Your task to perform on an android device: Open the map Image 0: 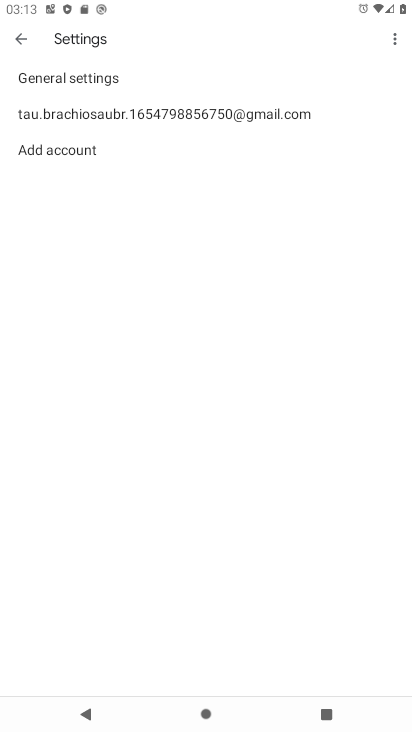
Step 0: press home button
Your task to perform on an android device: Open the map Image 1: 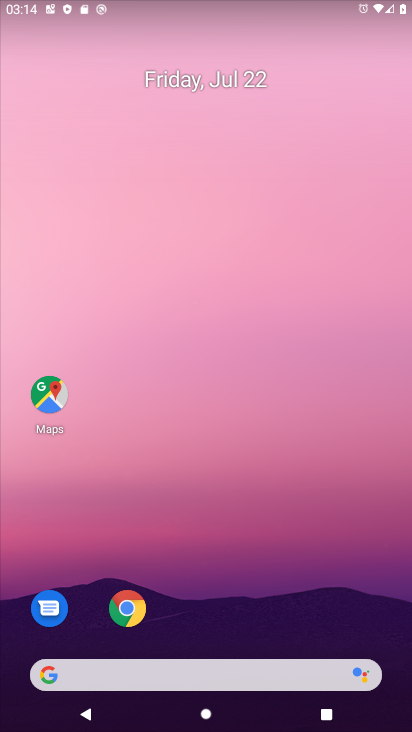
Step 1: click (53, 401)
Your task to perform on an android device: Open the map Image 2: 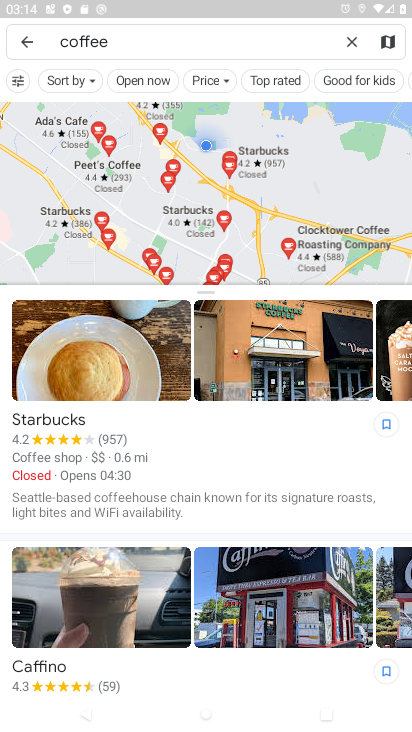
Step 2: task complete